Your task to perform on an android device: turn notification dots off Image 0: 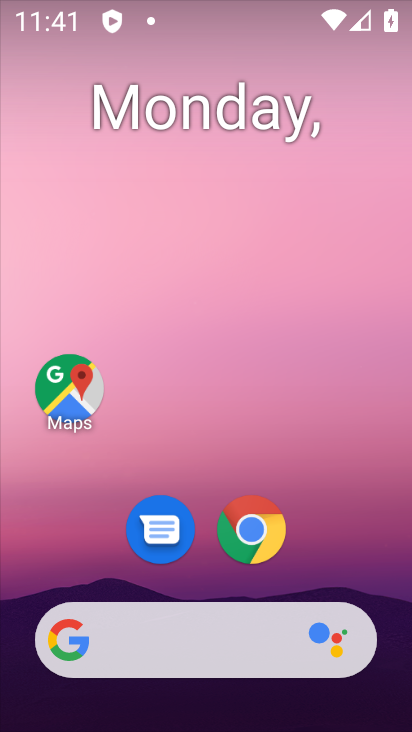
Step 0: click (115, 345)
Your task to perform on an android device: turn notification dots off Image 1: 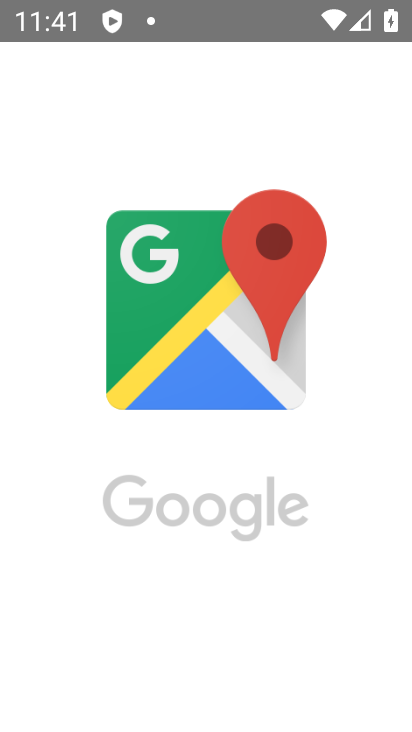
Step 1: press home button
Your task to perform on an android device: turn notification dots off Image 2: 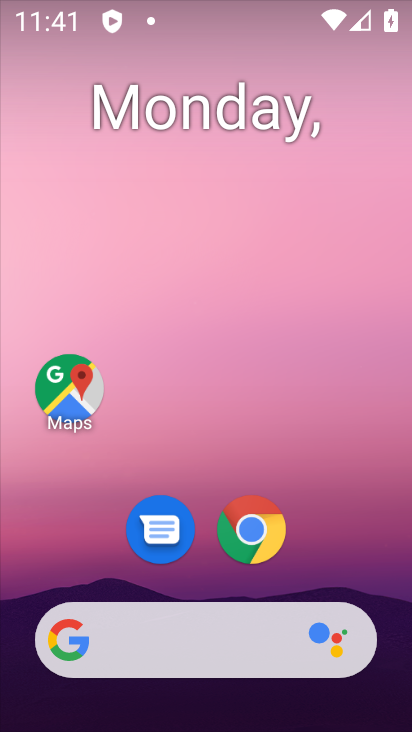
Step 2: drag from (106, 607) to (246, 0)
Your task to perform on an android device: turn notification dots off Image 3: 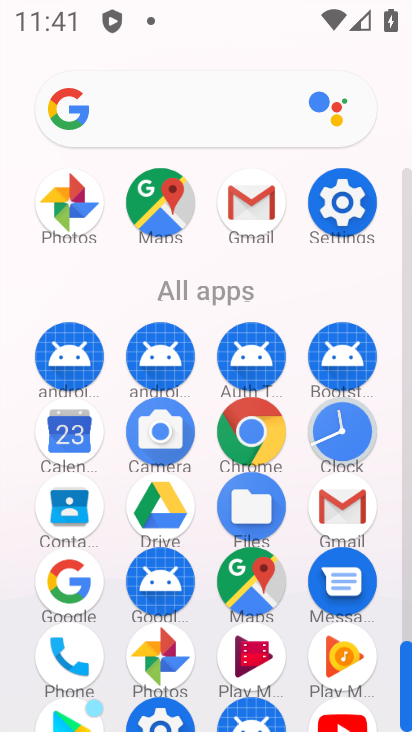
Step 3: drag from (215, 696) to (284, 384)
Your task to perform on an android device: turn notification dots off Image 4: 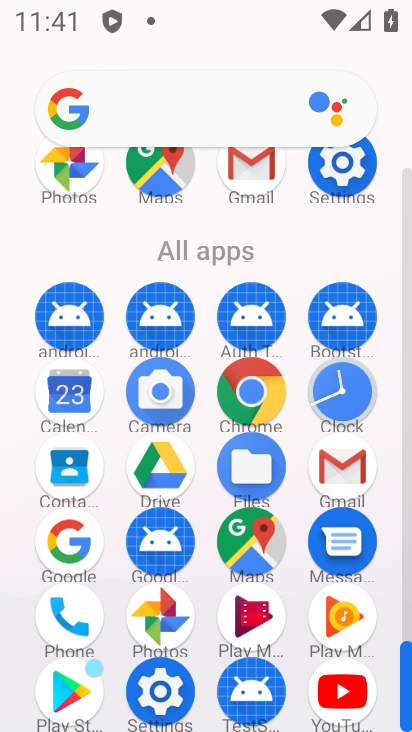
Step 4: click (163, 700)
Your task to perform on an android device: turn notification dots off Image 5: 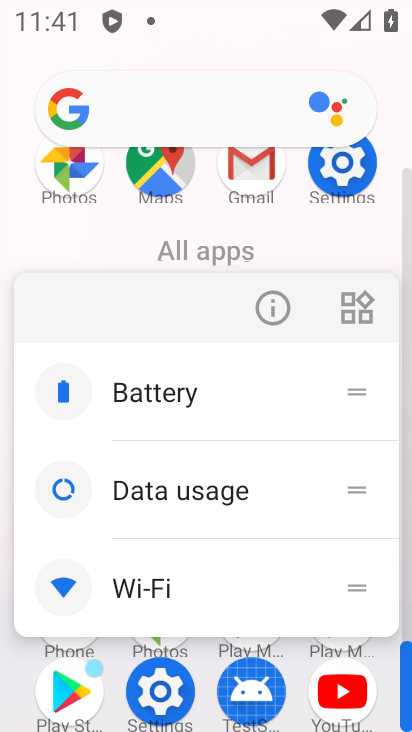
Step 5: click (171, 686)
Your task to perform on an android device: turn notification dots off Image 6: 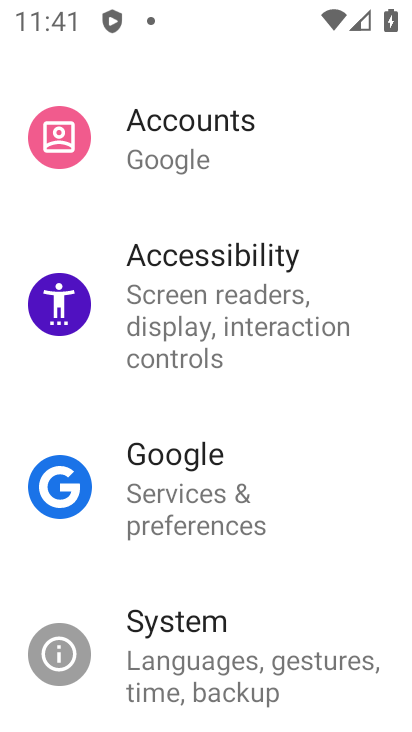
Step 6: drag from (227, 355) to (259, 705)
Your task to perform on an android device: turn notification dots off Image 7: 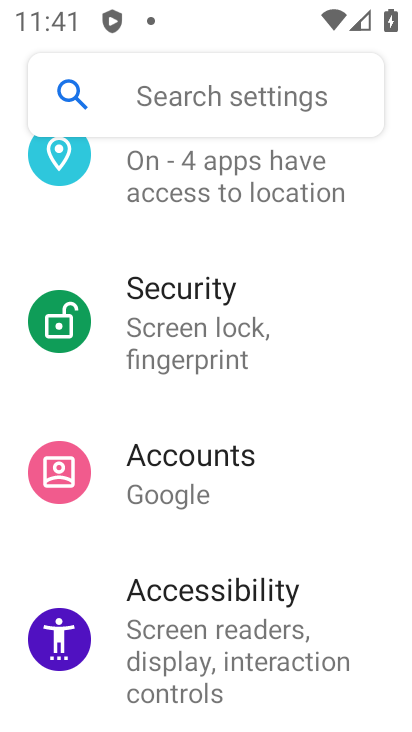
Step 7: drag from (272, 298) to (264, 598)
Your task to perform on an android device: turn notification dots off Image 8: 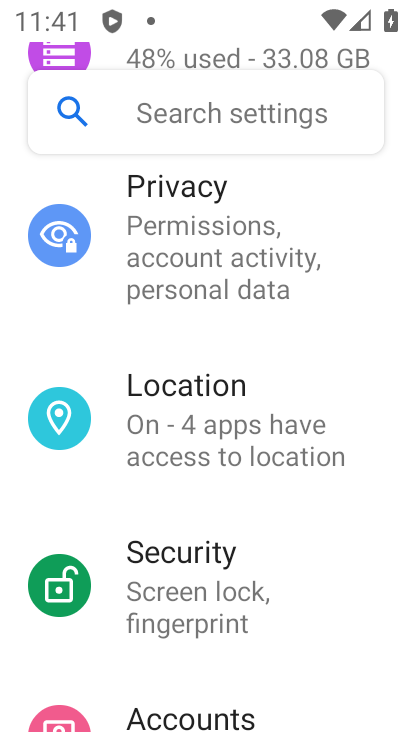
Step 8: drag from (253, 233) to (260, 621)
Your task to perform on an android device: turn notification dots off Image 9: 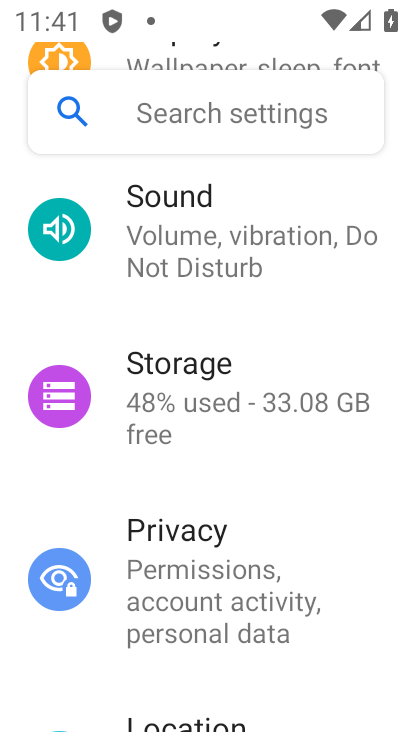
Step 9: drag from (288, 272) to (268, 667)
Your task to perform on an android device: turn notification dots off Image 10: 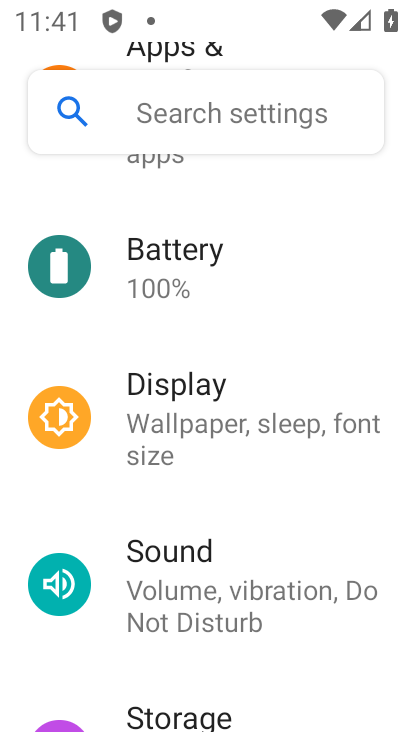
Step 10: drag from (287, 294) to (286, 659)
Your task to perform on an android device: turn notification dots off Image 11: 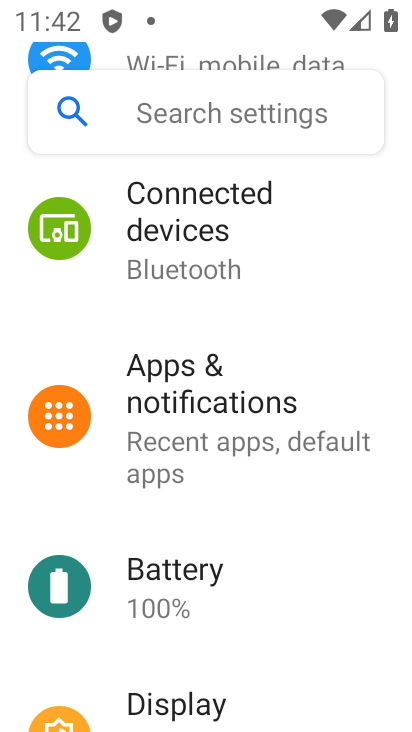
Step 11: click (239, 393)
Your task to perform on an android device: turn notification dots off Image 12: 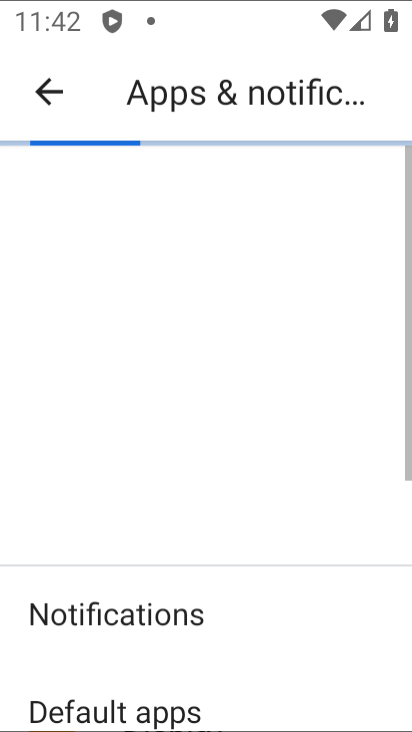
Step 12: click (203, 437)
Your task to perform on an android device: turn notification dots off Image 13: 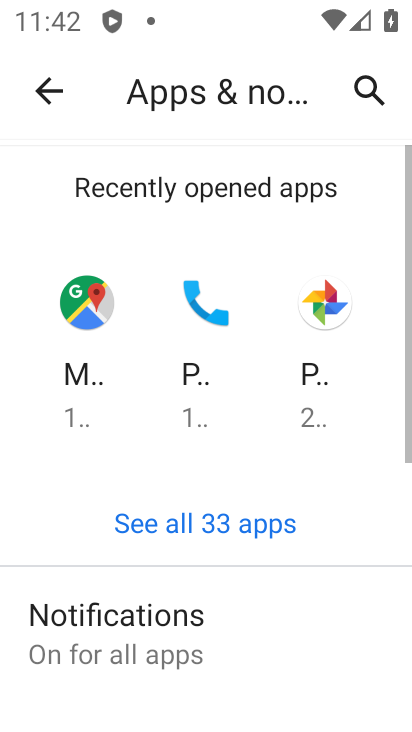
Step 13: drag from (248, 646) to (364, 247)
Your task to perform on an android device: turn notification dots off Image 14: 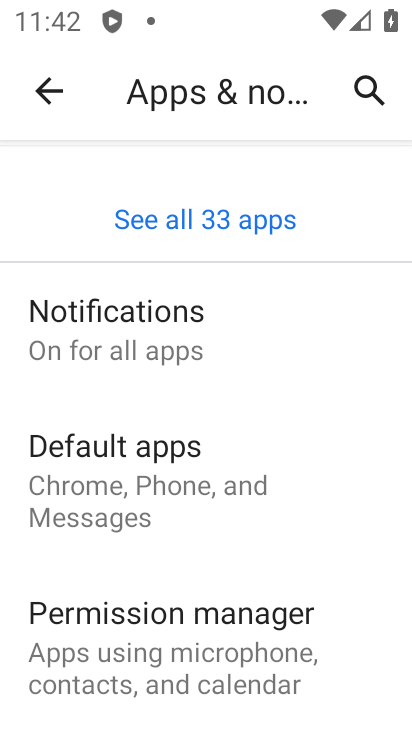
Step 14: click (239, 347)
Your task to perform on an android device: turn notification dots off Image 15: 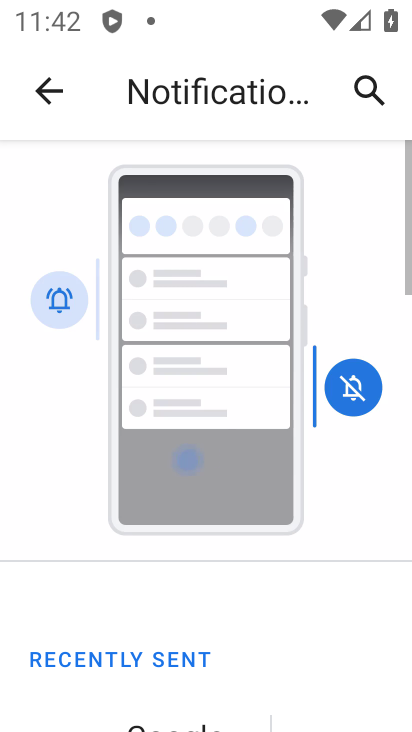
Step 15: drag from (202, 665) to (366, 79)
Your task to perform on an android device: turn notification dots off Image 16: 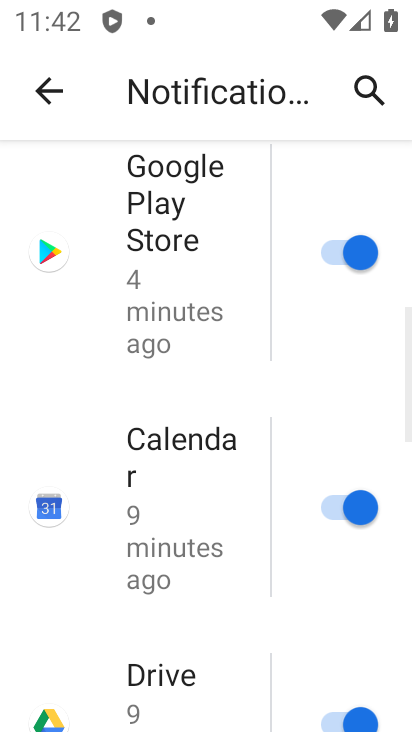
Step 16: drag from (212, 633) to (369, 38)
Your task to perform on an android device: turn notification dots off Image 17: 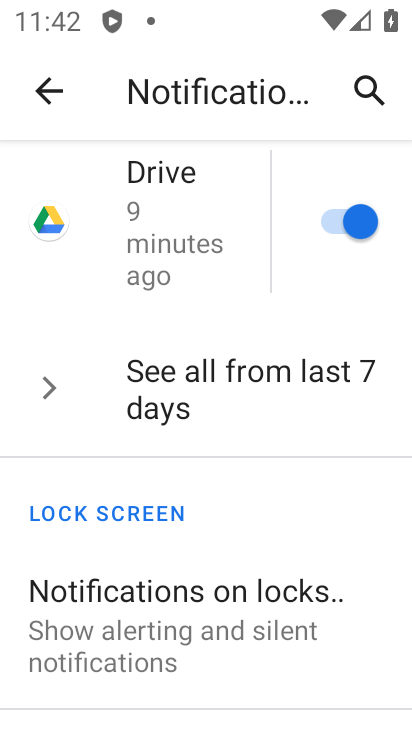
Step 17: drag from (222, 610) to (324, 237)
Your task to perform on an android device: turn notification dots off Image 18: 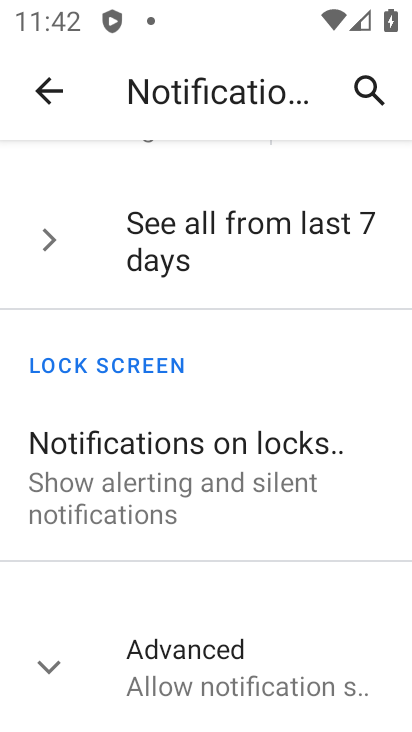
Step 18: click (227, 659)
Your task to perform on an android device: turn notification dots off Image 19: 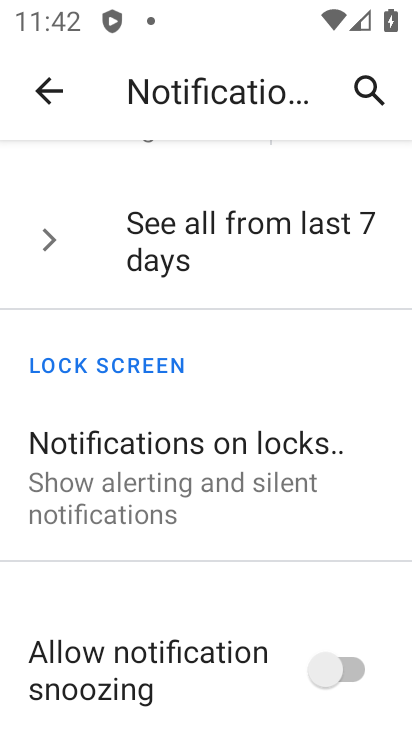
Step 19: drag from (169, 688) to (345, 185)
Your task to perform on an android device: turn notification dots off Image 20: 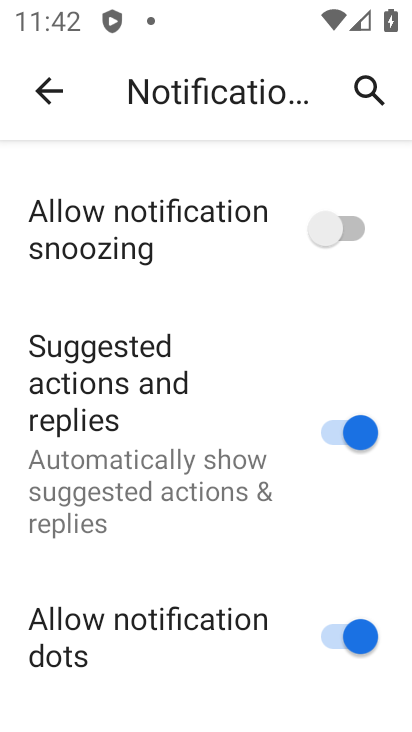
Step 20: click (326, 654)
Your task to perform on an android device: turn notification dots off Image 21: 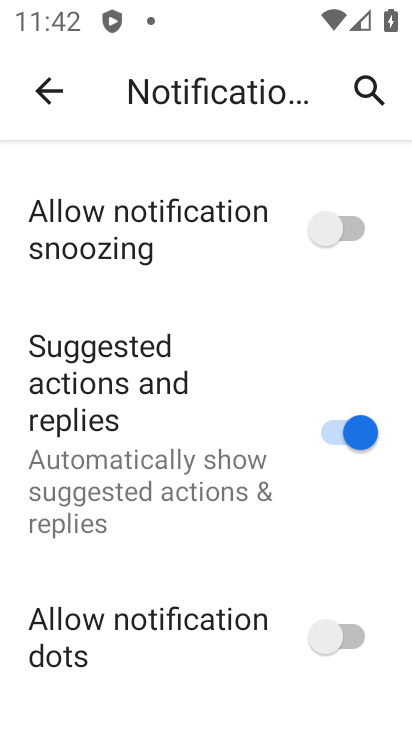
Step 21: task complete